Your task to perform on an android device: Search for "dell alienware" on bestbuy, select the first entry, and add it to the cart. Image 0: 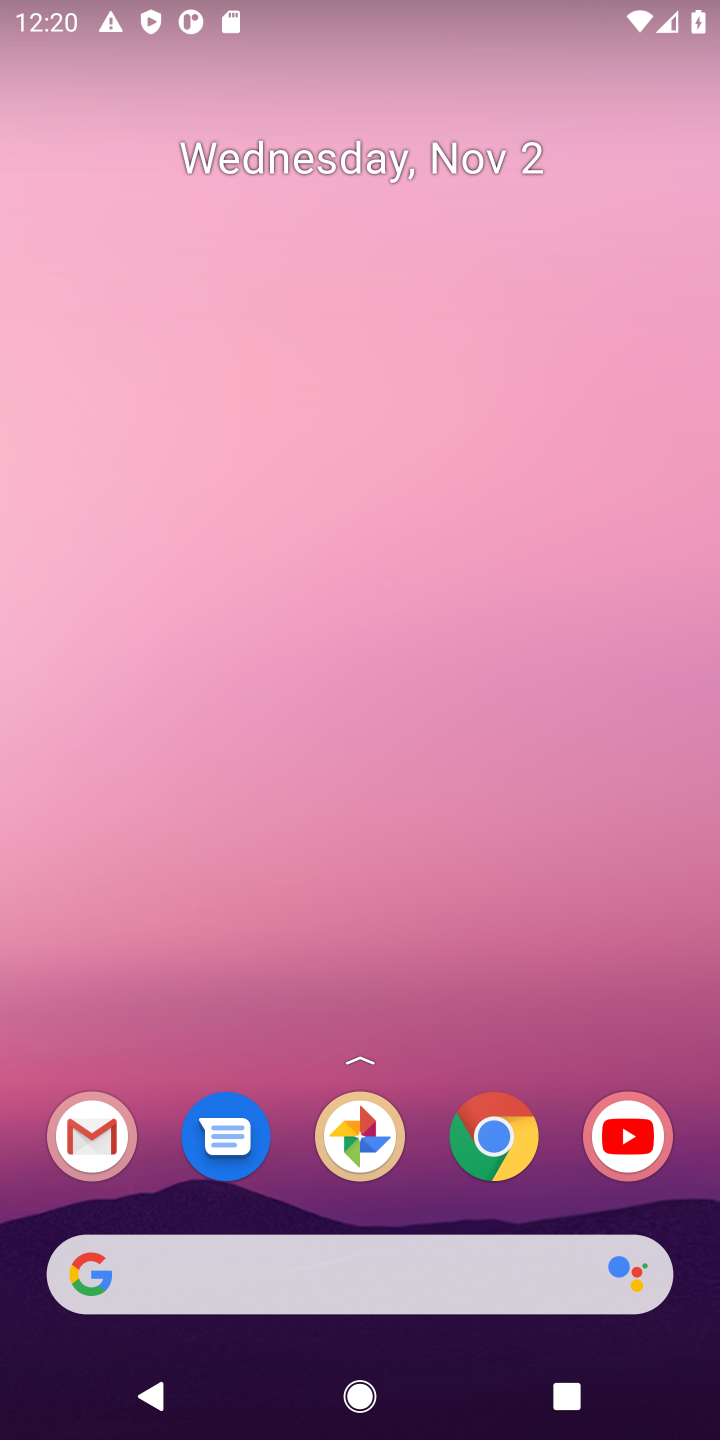
Step 0: click (502, 1152)
Your task to perform on an android device: Search for "dell alienware" on bestbuy, select the first entry, and add it to the cart. Image 1: 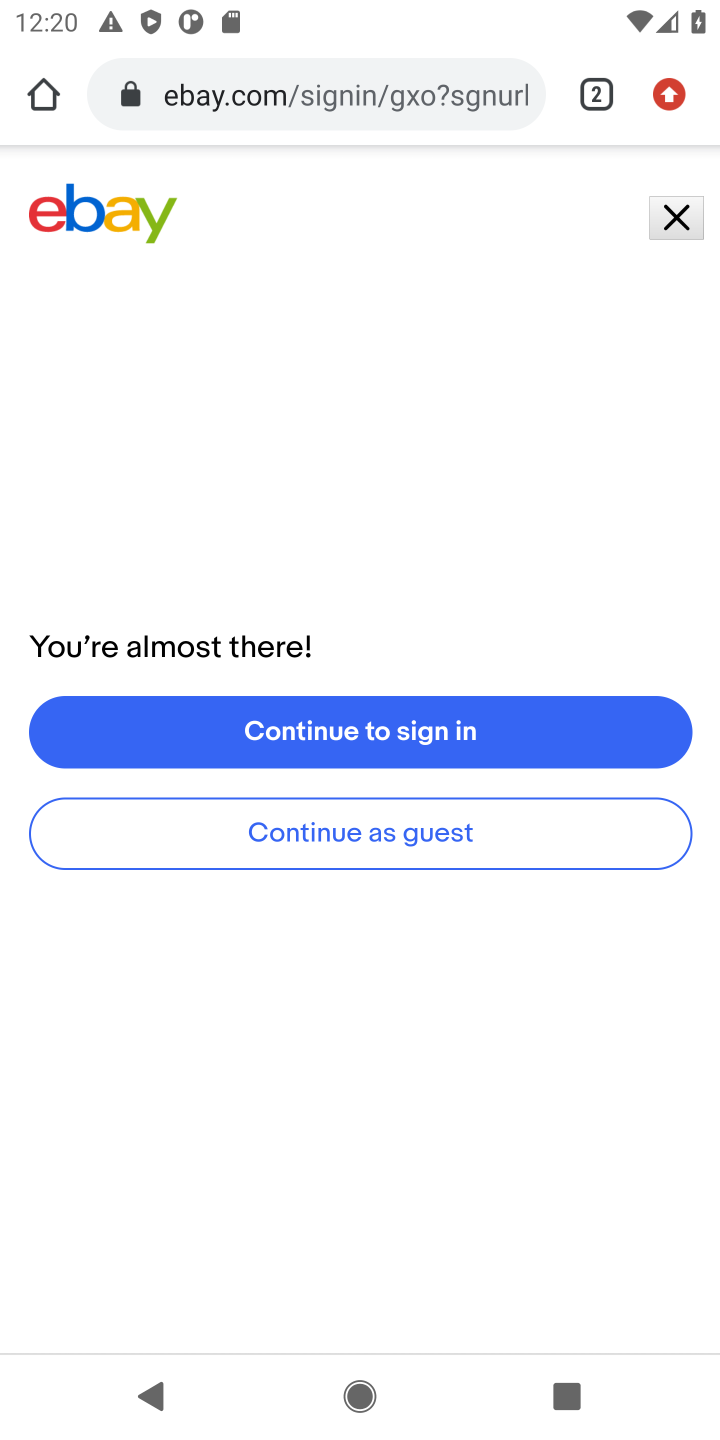
Step 1: click (288, 98)
Your task to perform on an android device: Search for "dell alienware" on bestbuy, select the first entry, and add it to the cart. Image 2: 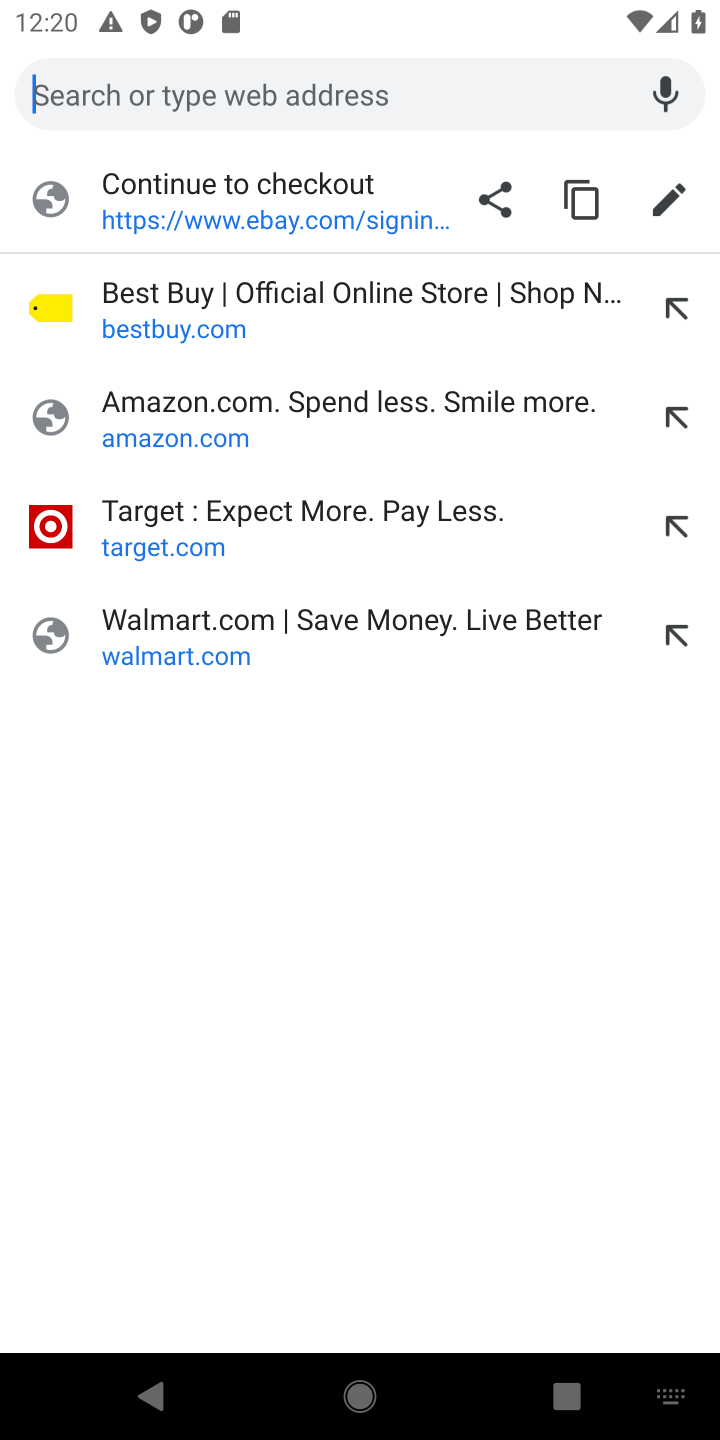
Step 2: click (384, 279)
Your task to perform on an android device: Search for "dell alienware" on bestbuy, select the first entry, and add it to the cart. Image 3: 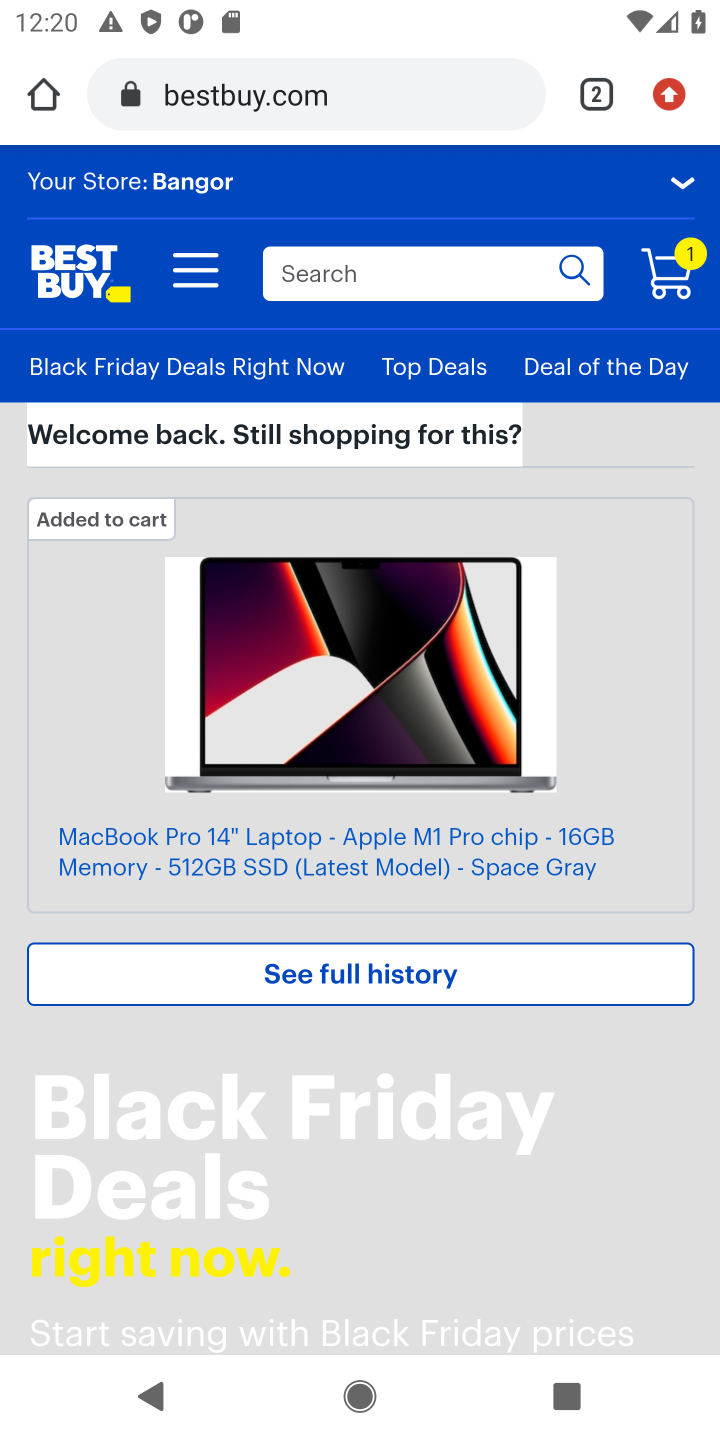
Step 3: click (384, 278)
Your task to perform on an android device: Search for "dell alienware" on bestbuy, select the first entry, and add it to the cart. Image 4: 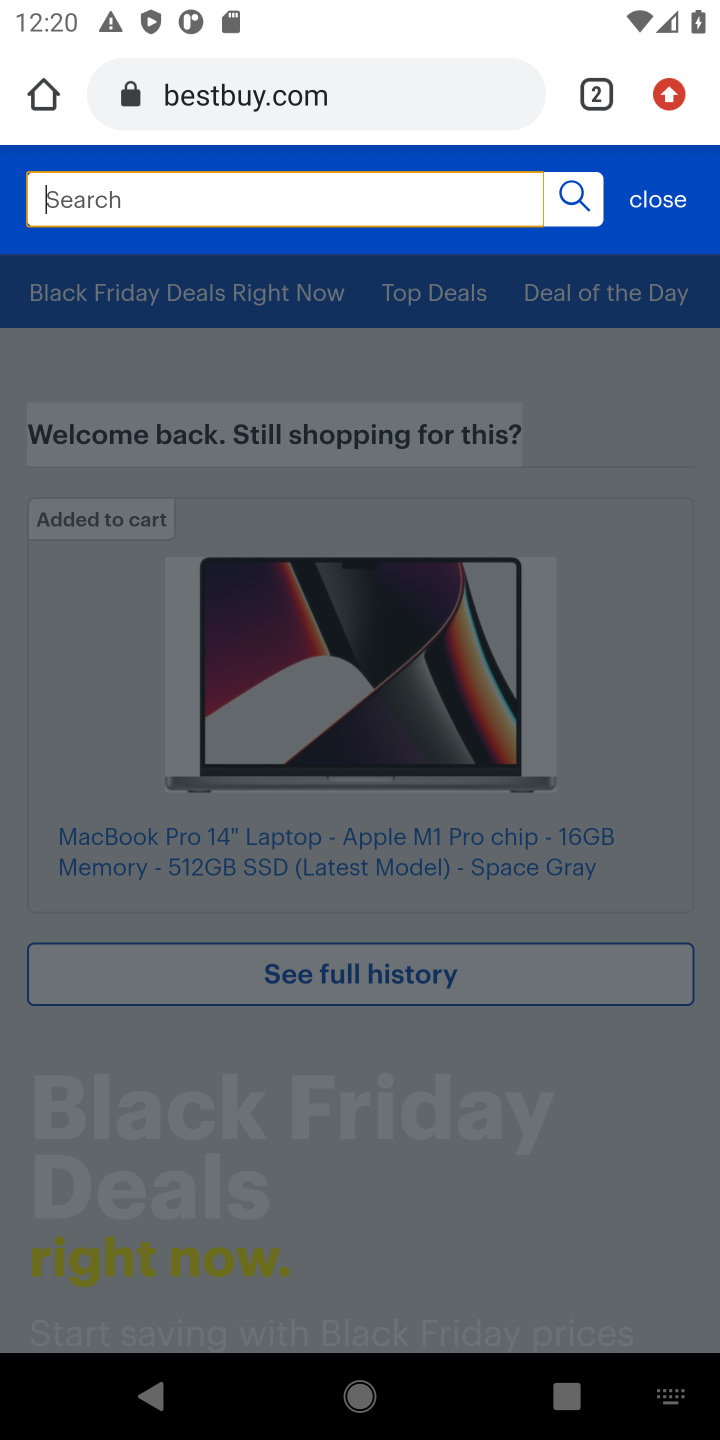
Step 4: type "dell alienware"
Your task to perform on an android device: Search for "dell alienware" on bestbuy, select the first entry, and add it to the cart. Image 5: 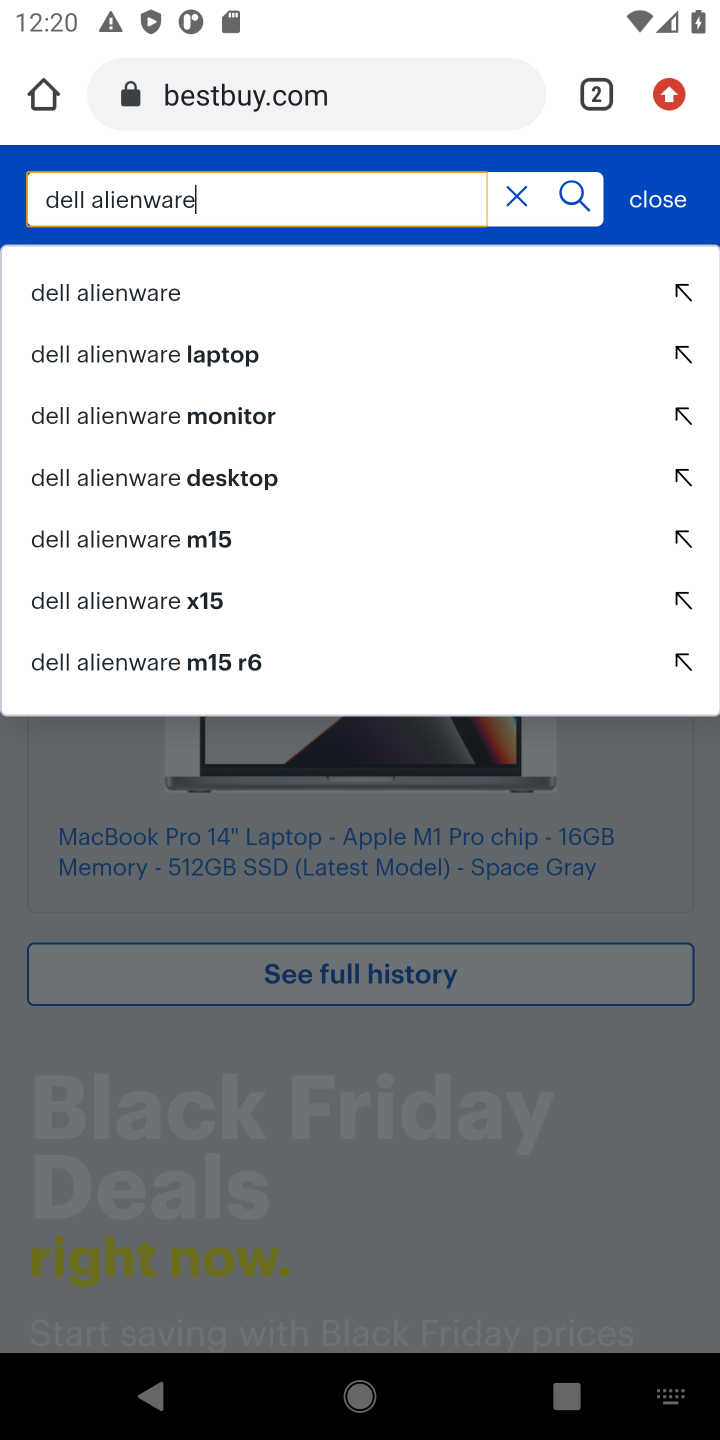
Step 5: click (594, 201)
Your task to perform on an android device: Search for "dell alienware" on bestbuy, select the first entry, and add it to the cart. Image 6: 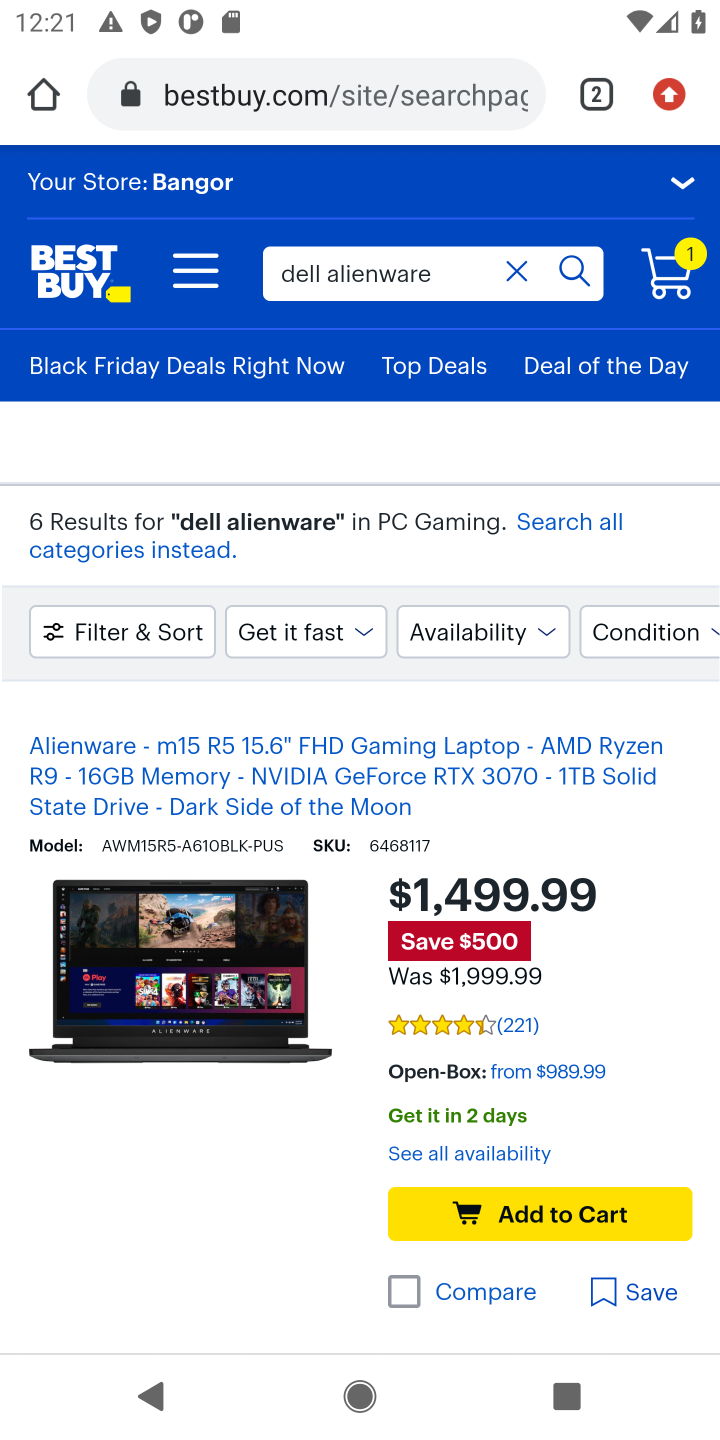
Step 6: click (477, 1220)
Your task to perform on an android device: Search for "dell alienware" on bestbuy, select the first entry, and add it to the cart. Image 7: 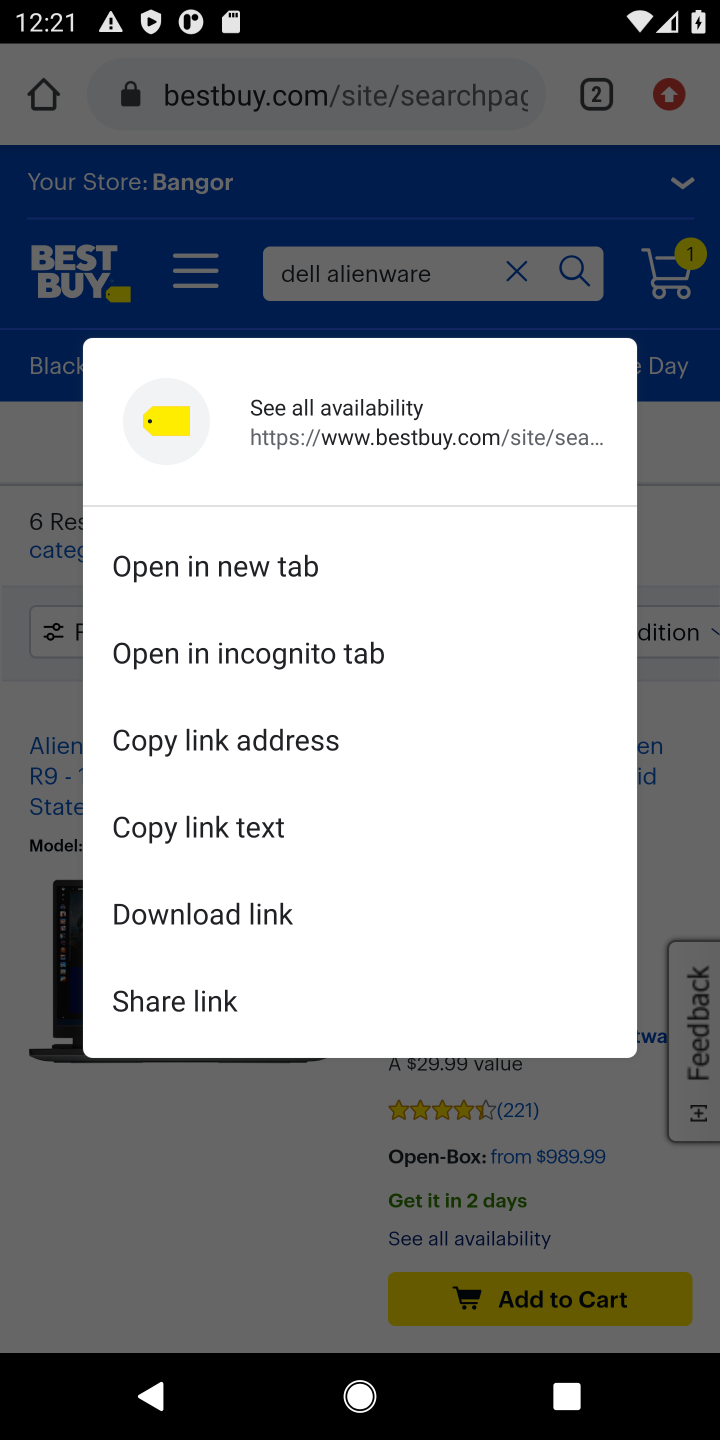
Step 7: click (495, 1291)
Your task to perform on an android device: Search for "dell alienware" on bestbuy, select the first entry, and add it to the cart. Image 8: 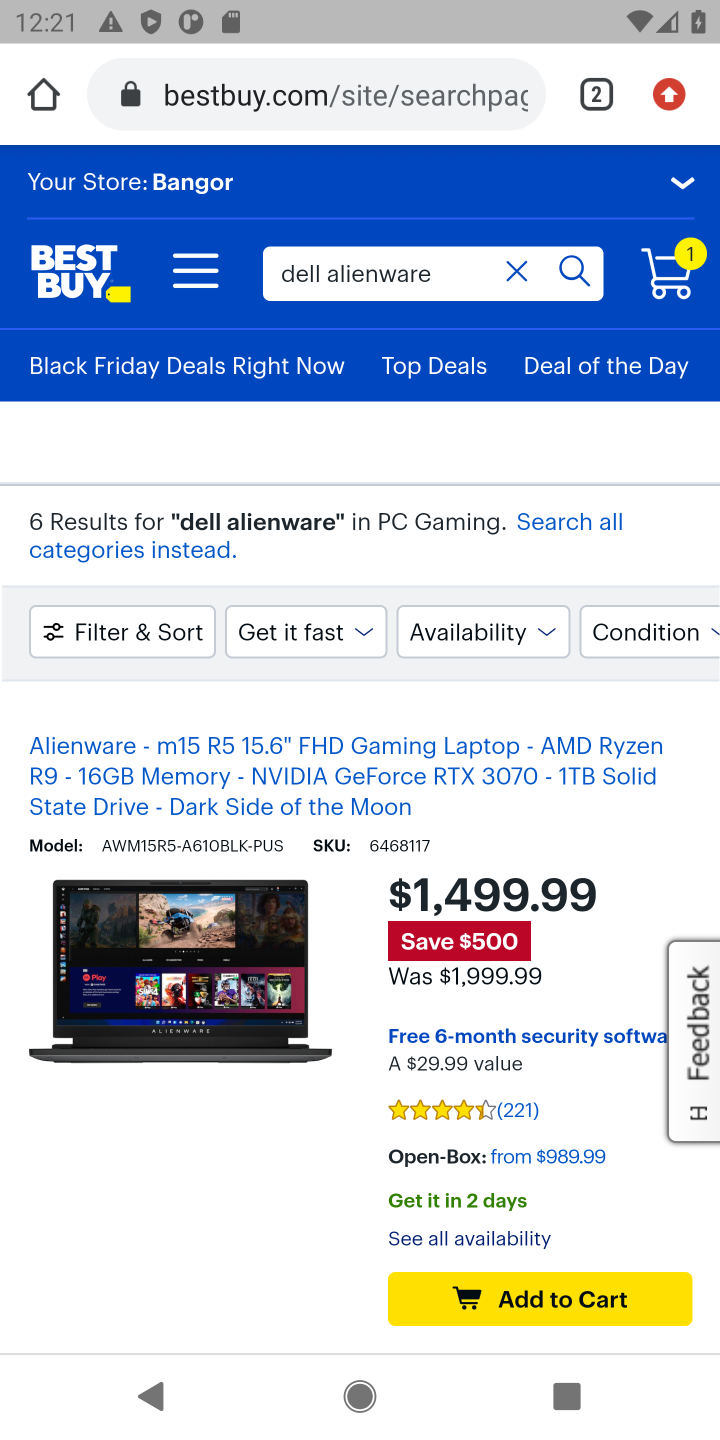
Step 8: click (495, 1291)
Your task to perform on an android device: Search for "dell alienware" on bestbuy, select the first entry, and add it to the cart. Image 9: 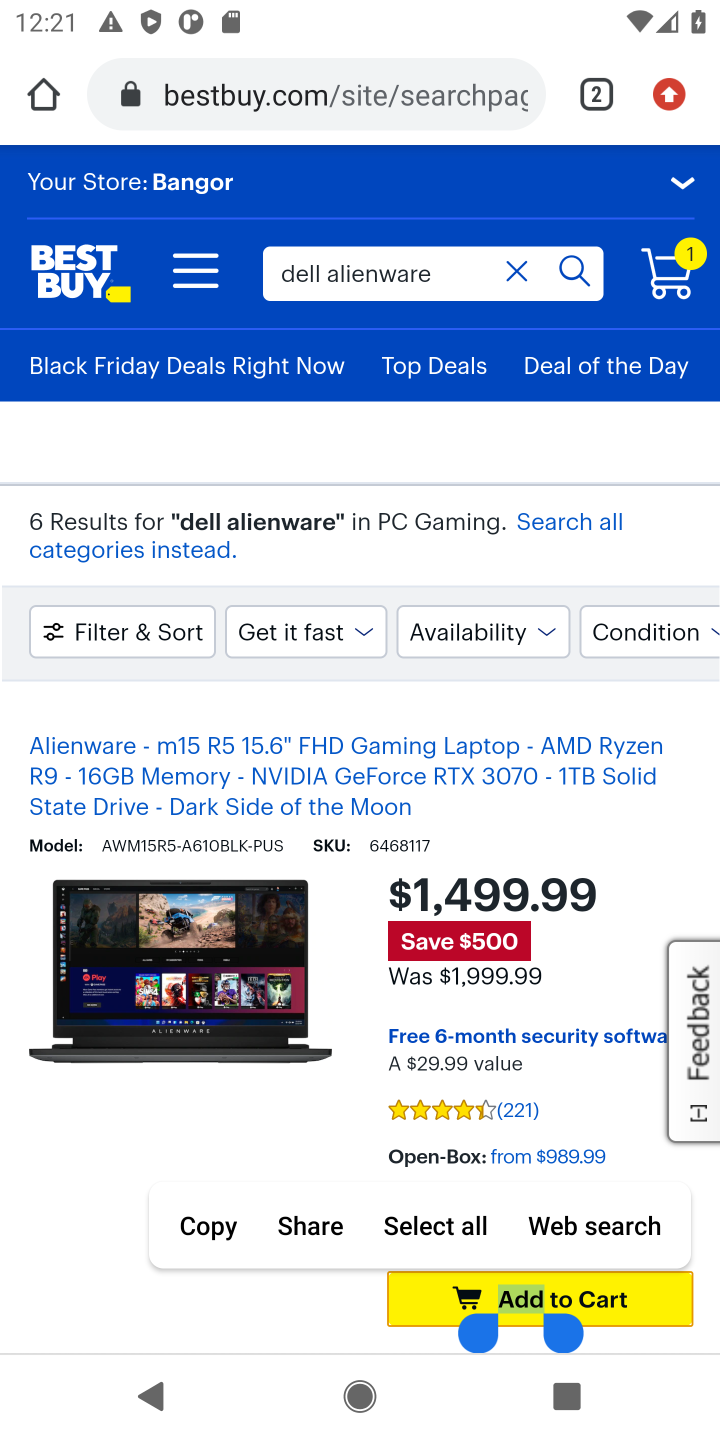
Step 9: click (495, 1291)
Your task to perform on an android device: Search for "dell alienware" on bestbuy, select the first entry, and add it to the cart. Image 10: 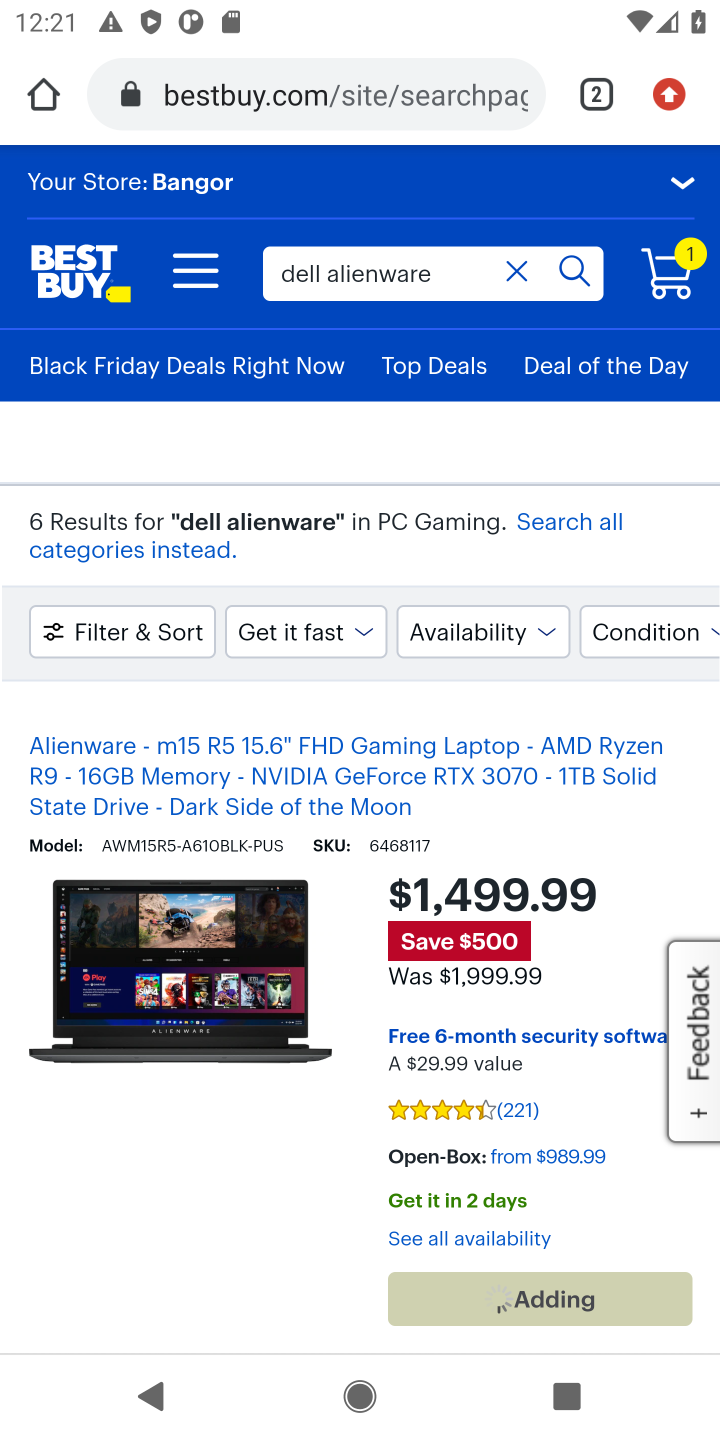
Step 10: click (656, 279)
Your task to perform on an android device: Search for "dell alienware" on bestbuy, select the first entry, and add it to the cart. Image 11: 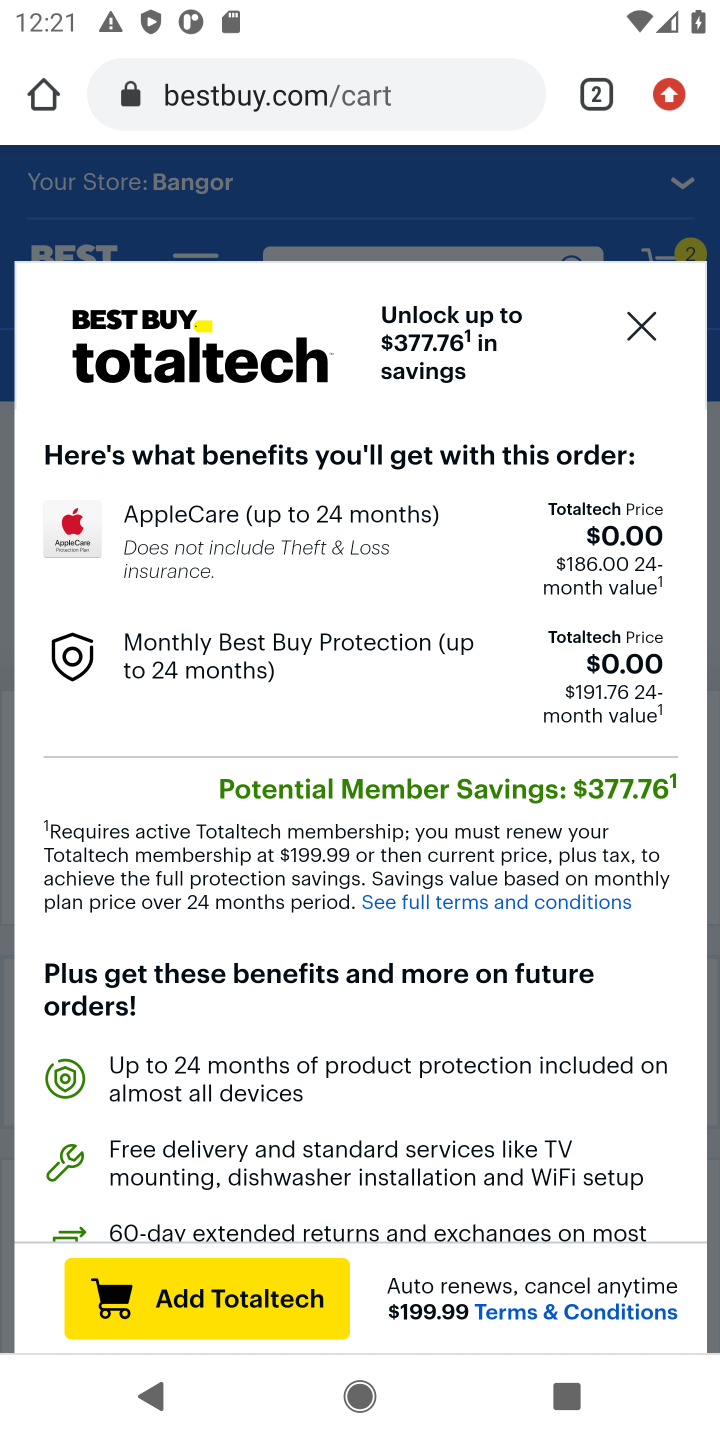
Step 11: click (627, 337)
Your task to perform on an android device: Search for "dell alienware" on bestbuy, select the first entry, and add it to the cart. Image 12: 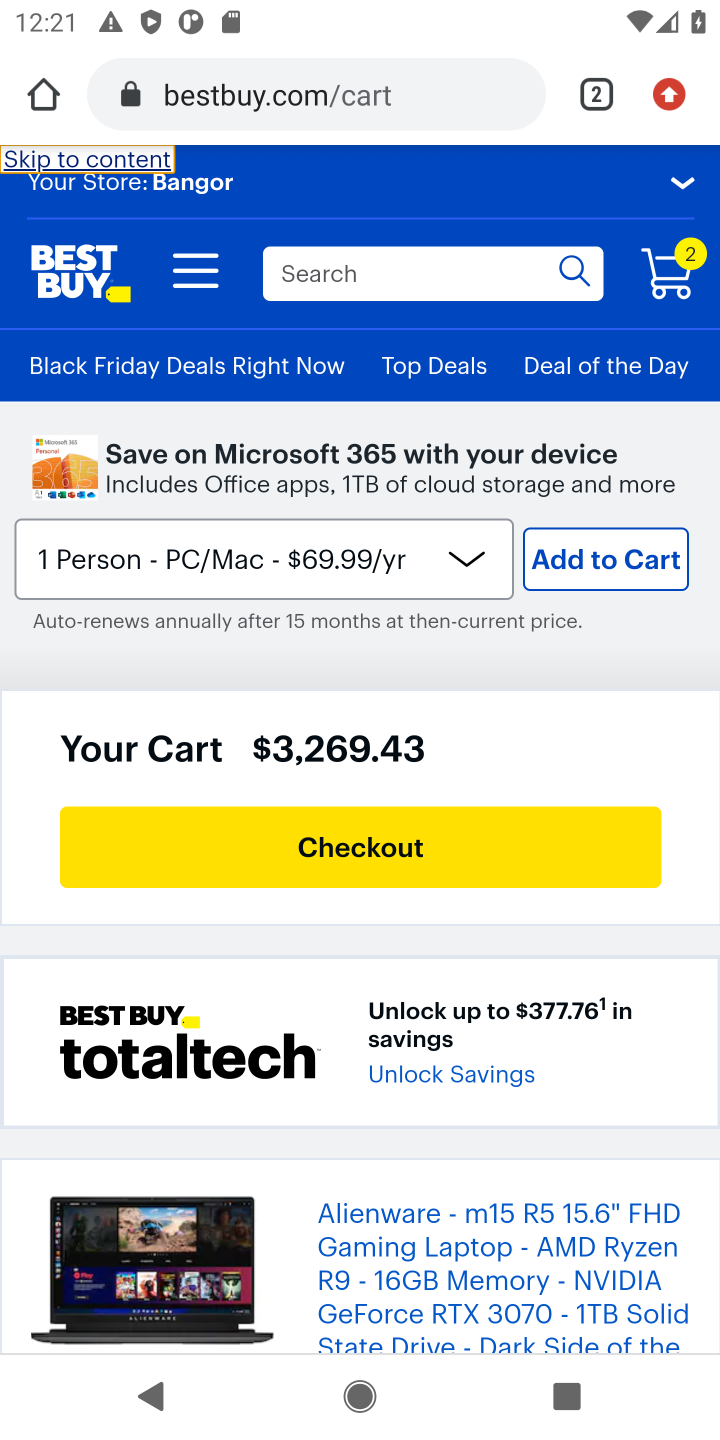
Step 12: click (380, 847)
Your task to perform on an android device: Search for "dell alienware" on bestbuy, select the first entry, and add it to the cart. Image 13: 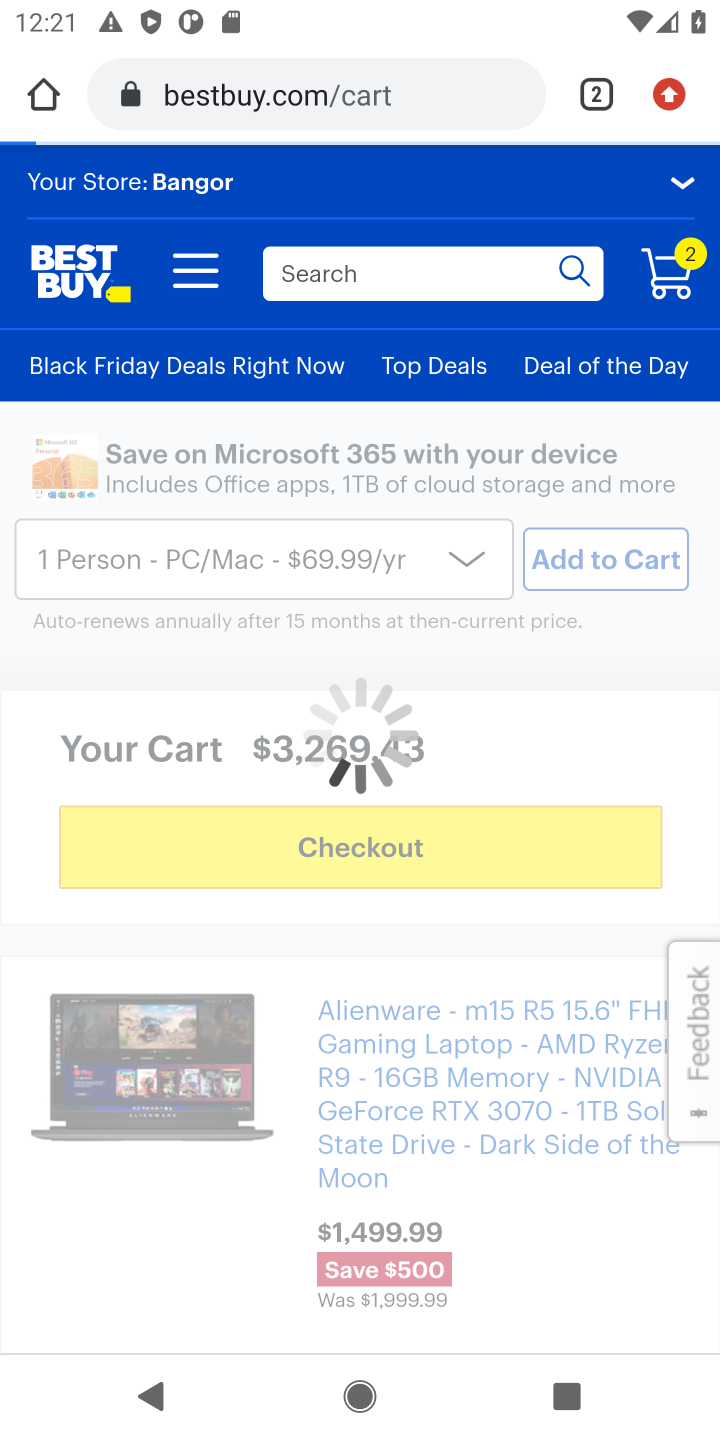
Step 13: task complete